Your task to perform on an android device: Do I have any events today? Image 0: 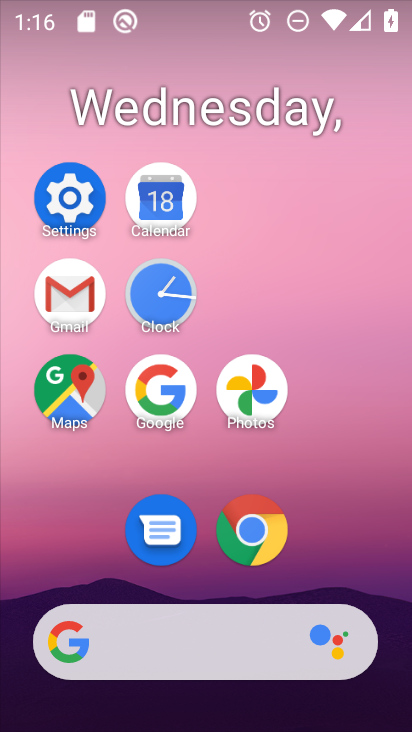
Step 0: click (160, 208)
Your task to perform on an android device: Do I have any events today? Image 1: 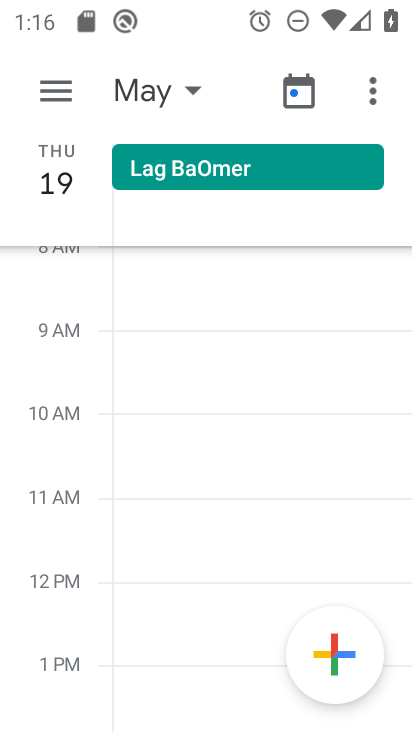
Step 1: drag from (81, 177) to (257, 135)
Your task to perform on an android device: Do I have any events today? Image 2: 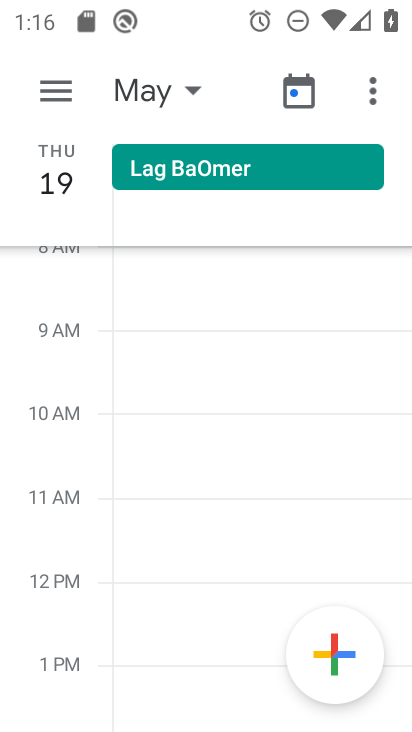
Step 2: drag from (66, 155) to (404, 170)
Your task to perform on an android device: Do I have any events today? Image 3: 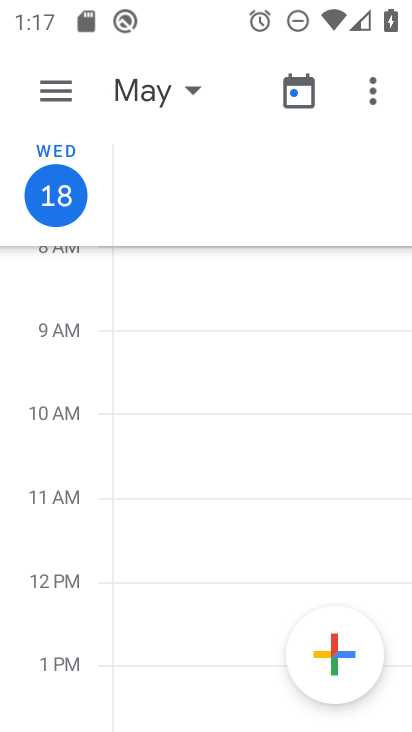
Step 3: drag from (62, 185) to (140, 167)
Your task to perform on an android device: Do I have any events today? Image 4: 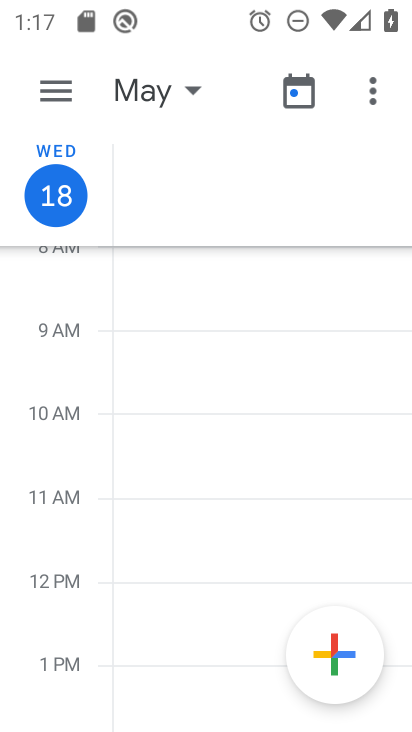
Step 4: click (140, 167)
Your task to perform on an android device: Do I have any events today? Image 5: 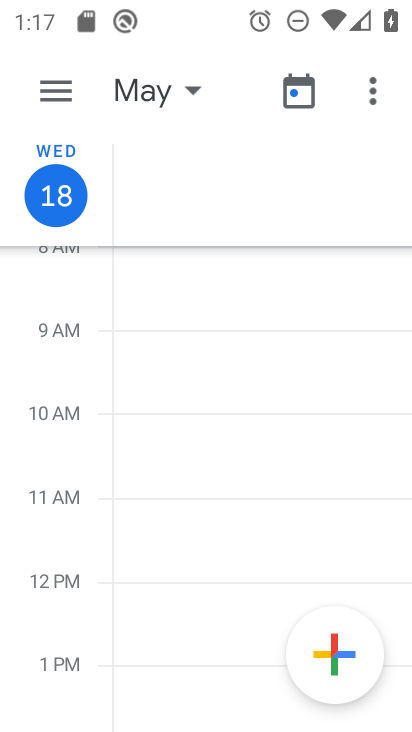
Step 5: click (81, 189)
Your task to perform on an android device: Do I have any events today? Image 6: 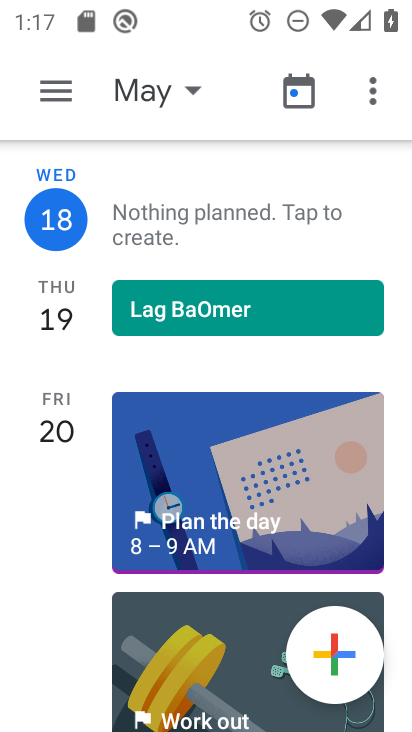
Step 6: task complete